Your task to perform on an android device: Check the weather Image 0: 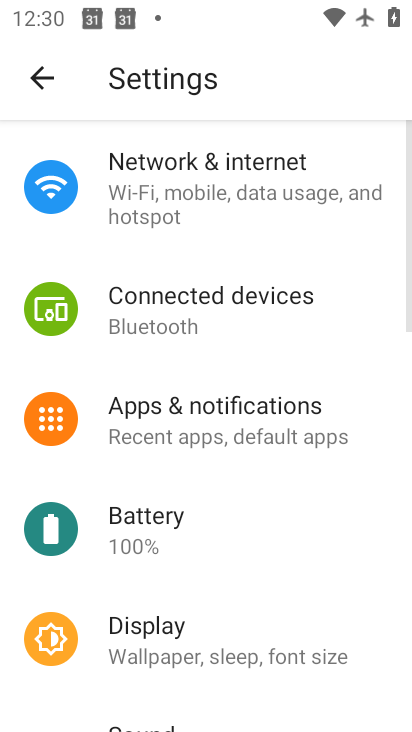
Step 0: press home button
Your task to perform on an android device: Check the weather Image 1: 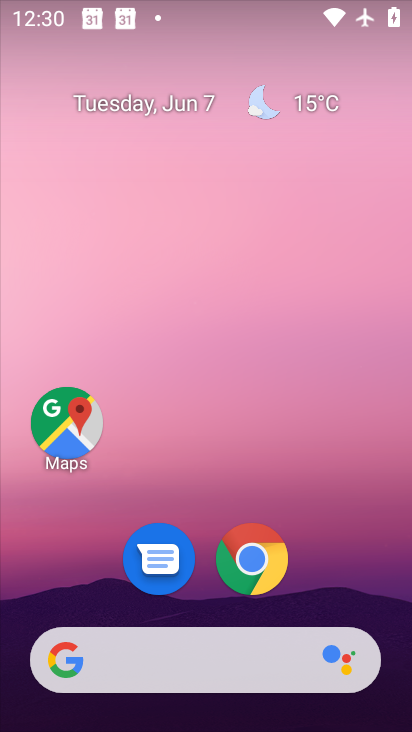
Step 1: click (303, 109)
Your task to perform on an android device: Check the weather Image 2: 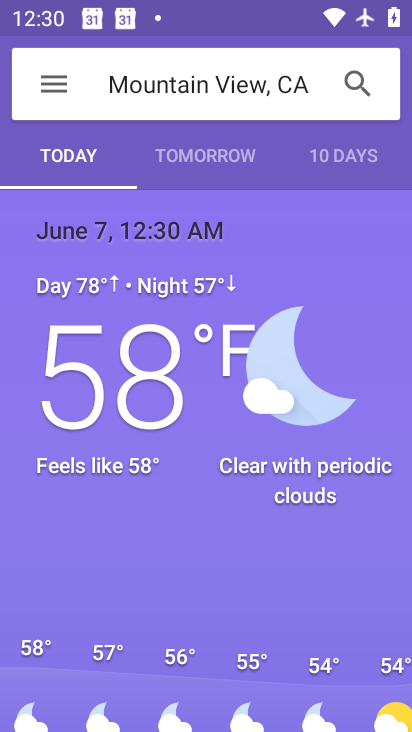
Step 2: task complete